Your task to perform on an android device: turn off javascript in the chrome app Image 0: 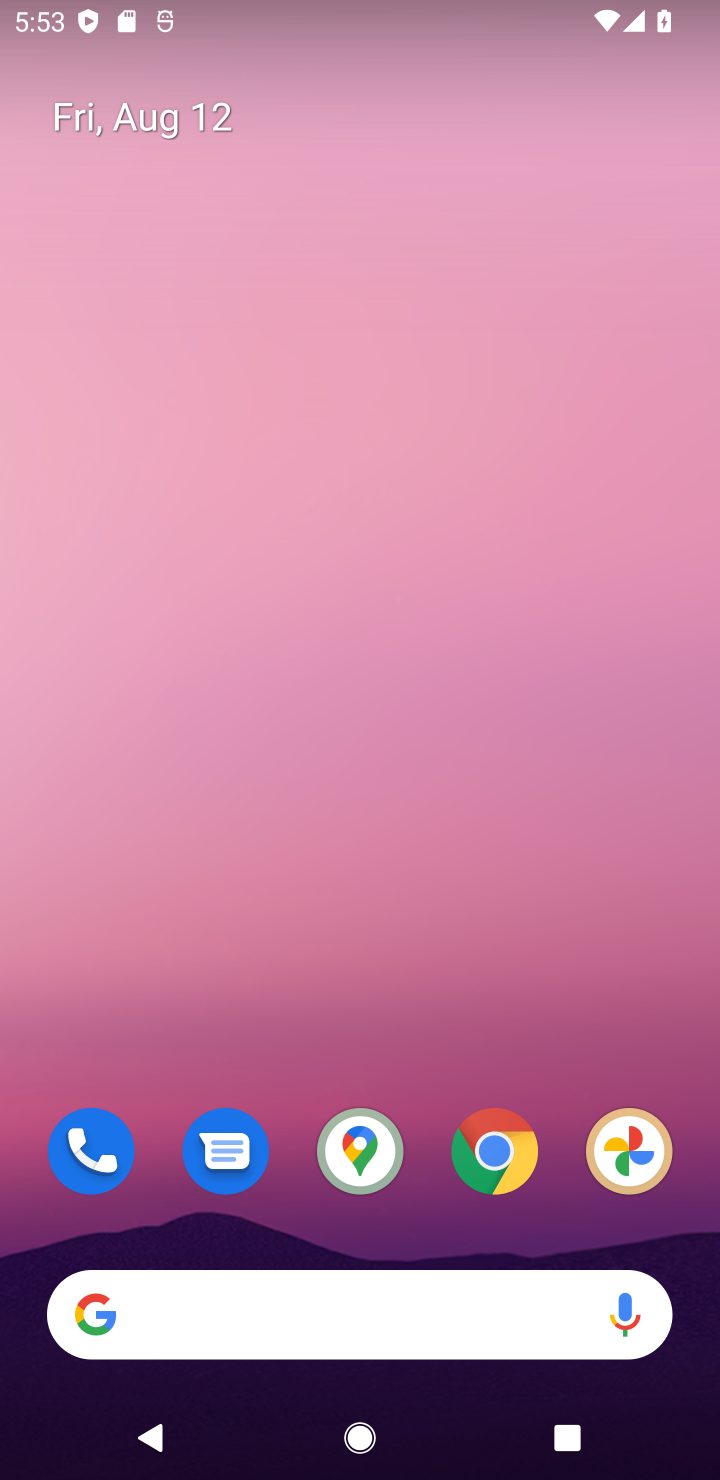
Step 0: drag from (341, 1240) to (237, 68)
Your task to perform on an android device: turn off javascript in the chrome app Image 1: 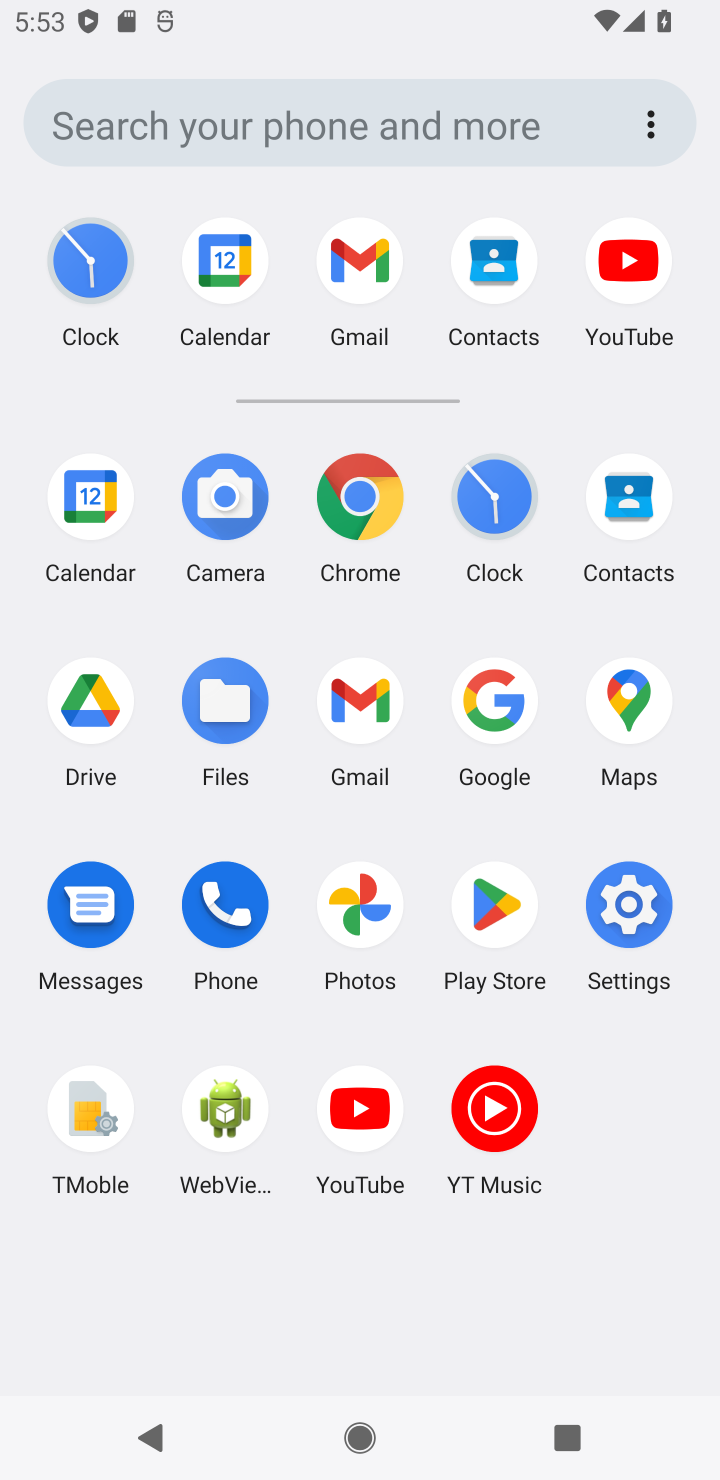
Step 1: click (376, 497)
Your task to perform on an android device: turn off javascript in the chrome app Image 2: 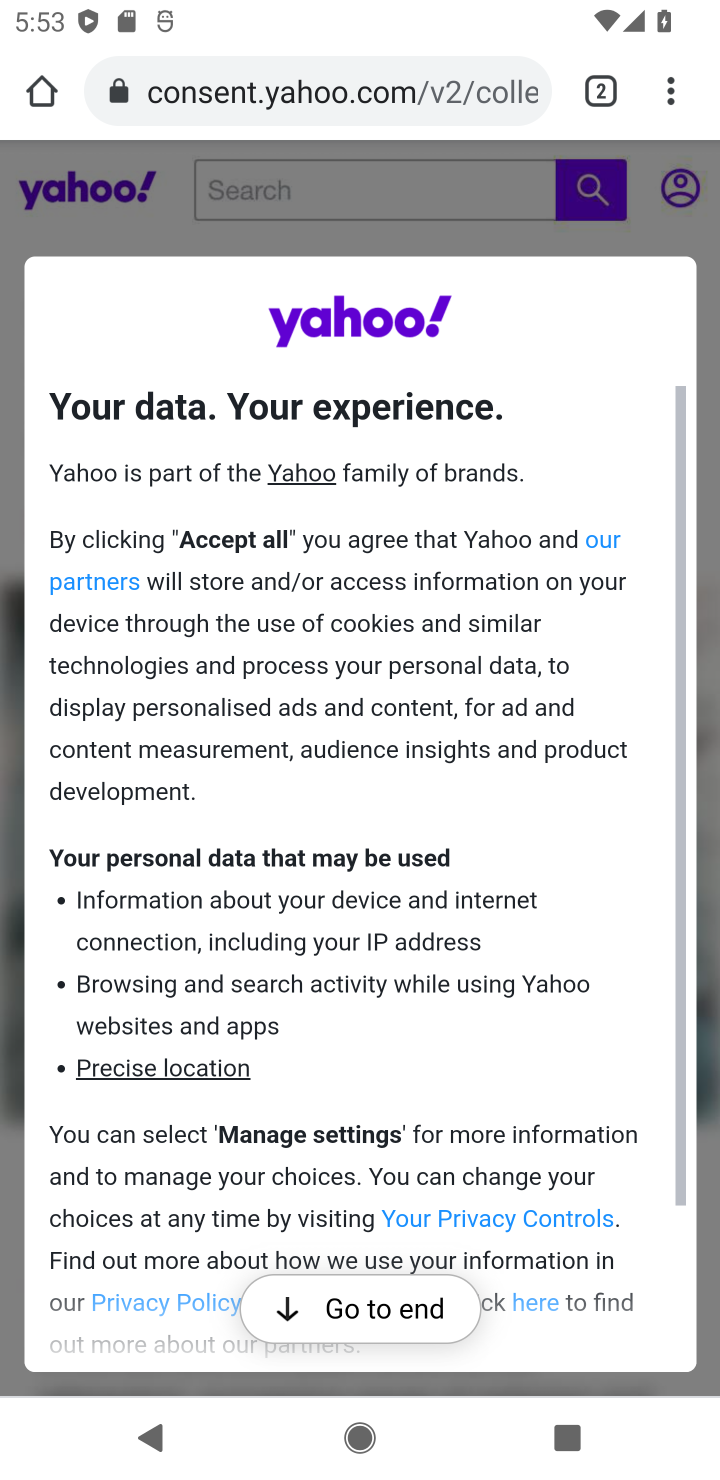
Step 2: drag from (675, 95) to (397, 1253)
Your task to perform on an android device: turn off javascript in the chrome app Image 3: 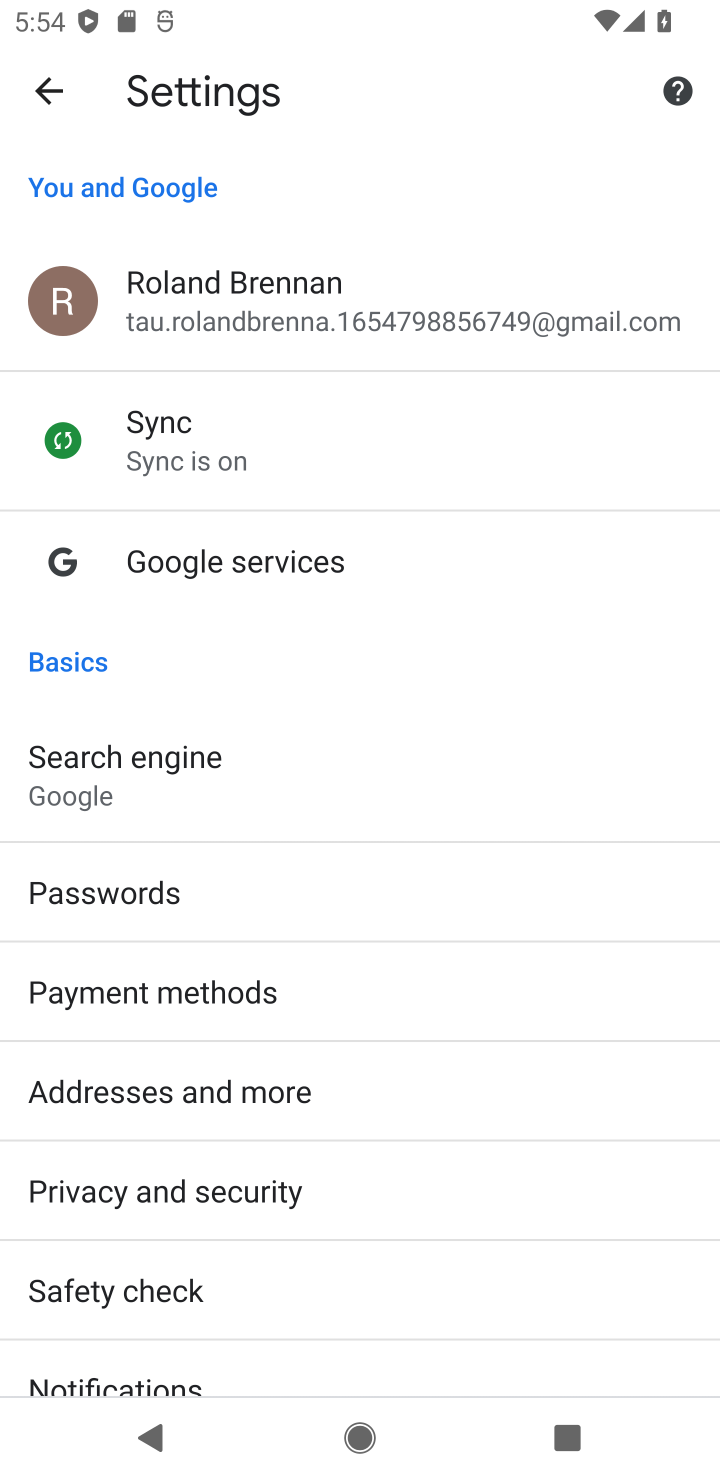
Step 3: drag from (411, 1257) to (129, 558)
Your task to perform on an android device: turn off javascript in the chrome app Image 4: 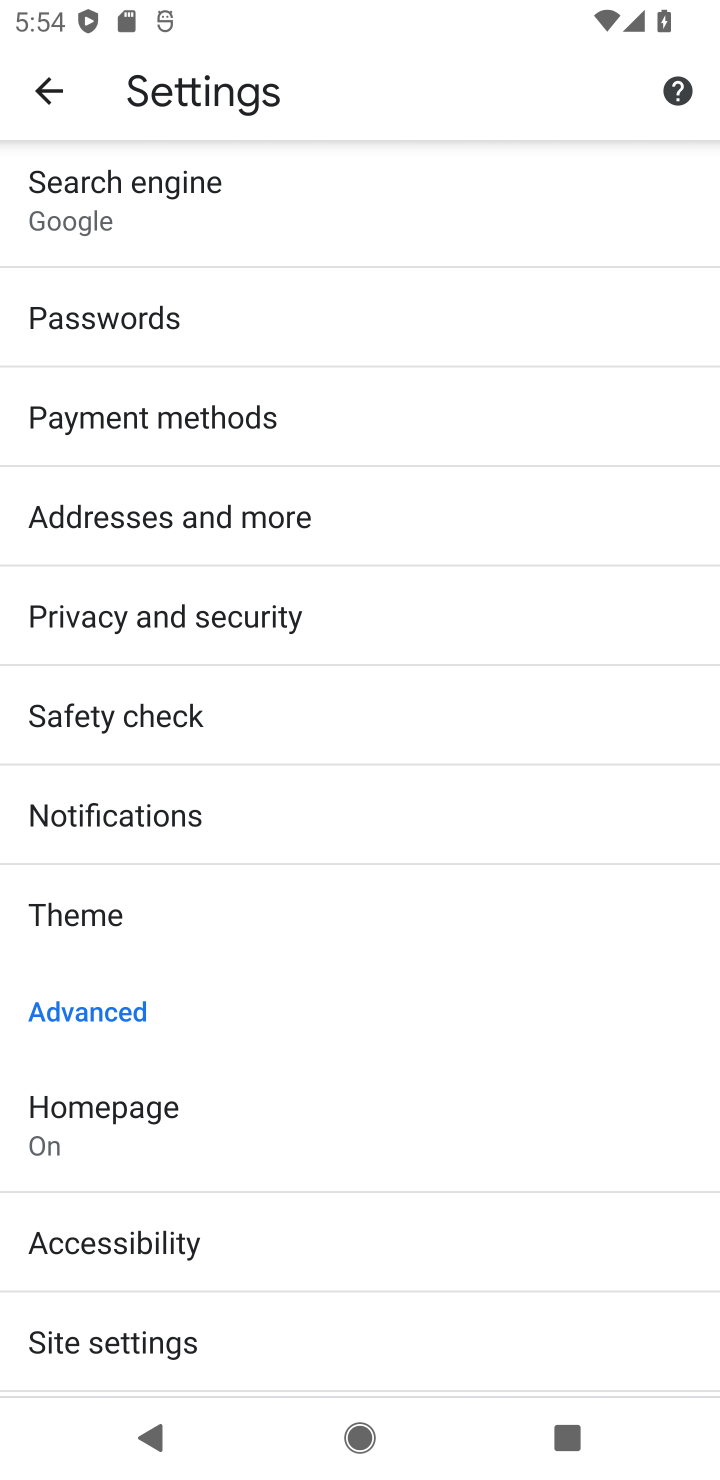
Step 4: click (194, 1319)
Your task to perform on an android device: turn off javascript in the chrome app Image 5: 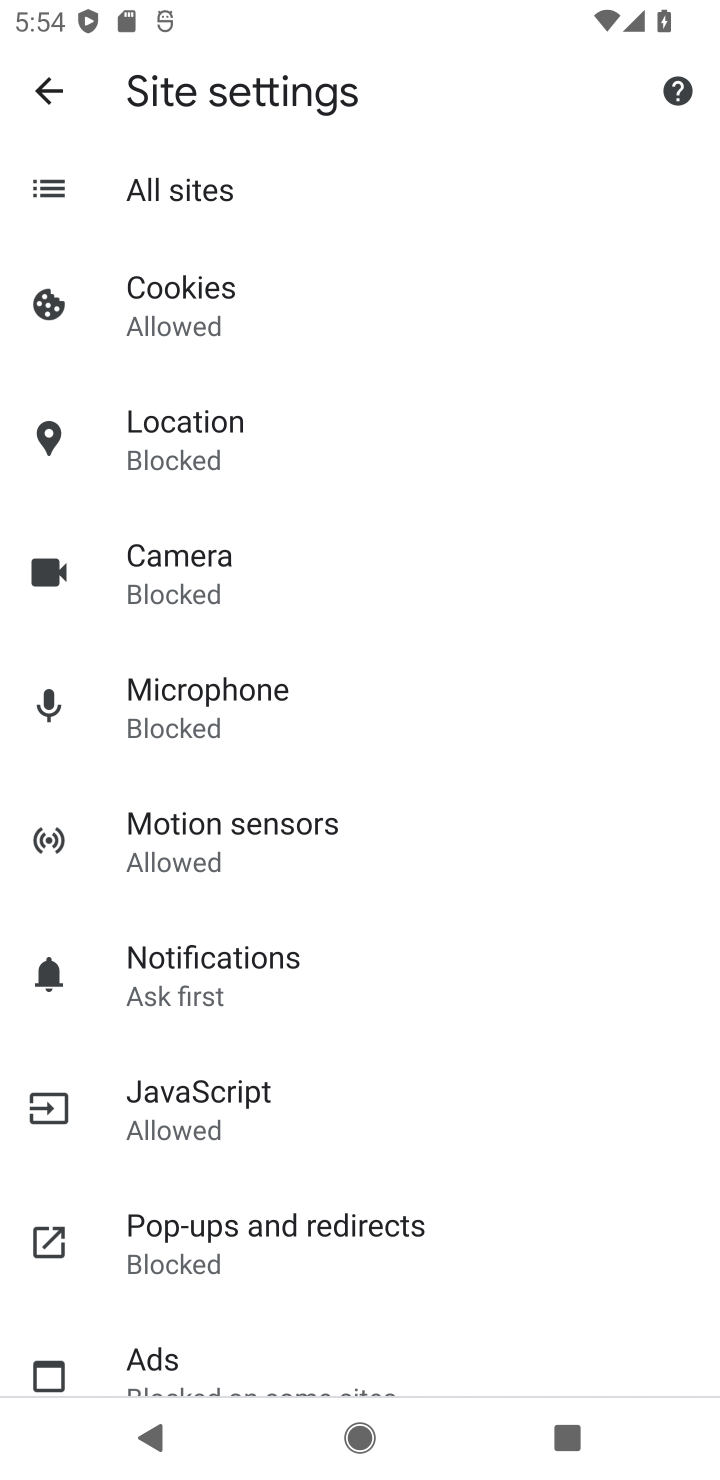
Step 5: click (254, 1120)
Your task to perform on an android device: turn off javascript in the chrome app Image 6: 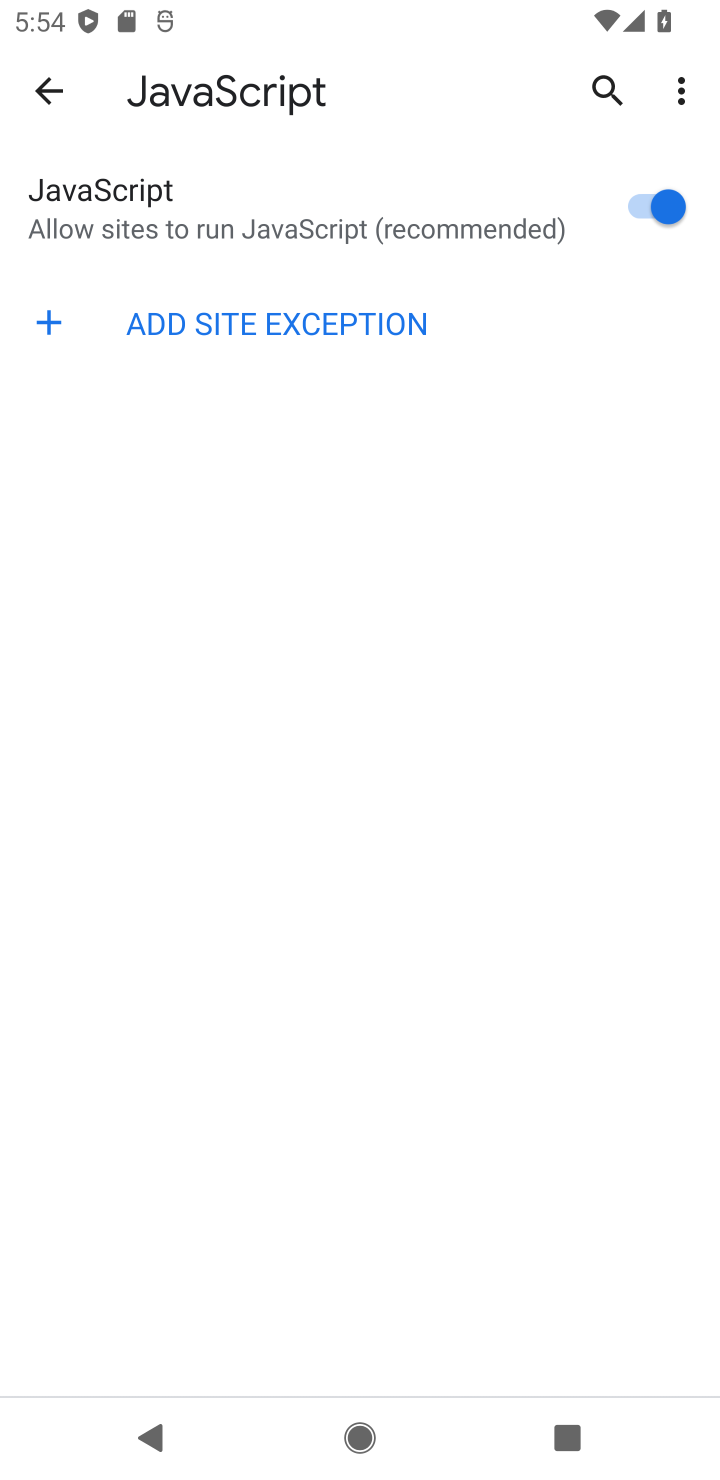
Step 6: click (683, 217)
Your task to perform on an android device: turn off javascript in the chrome app Image 7: 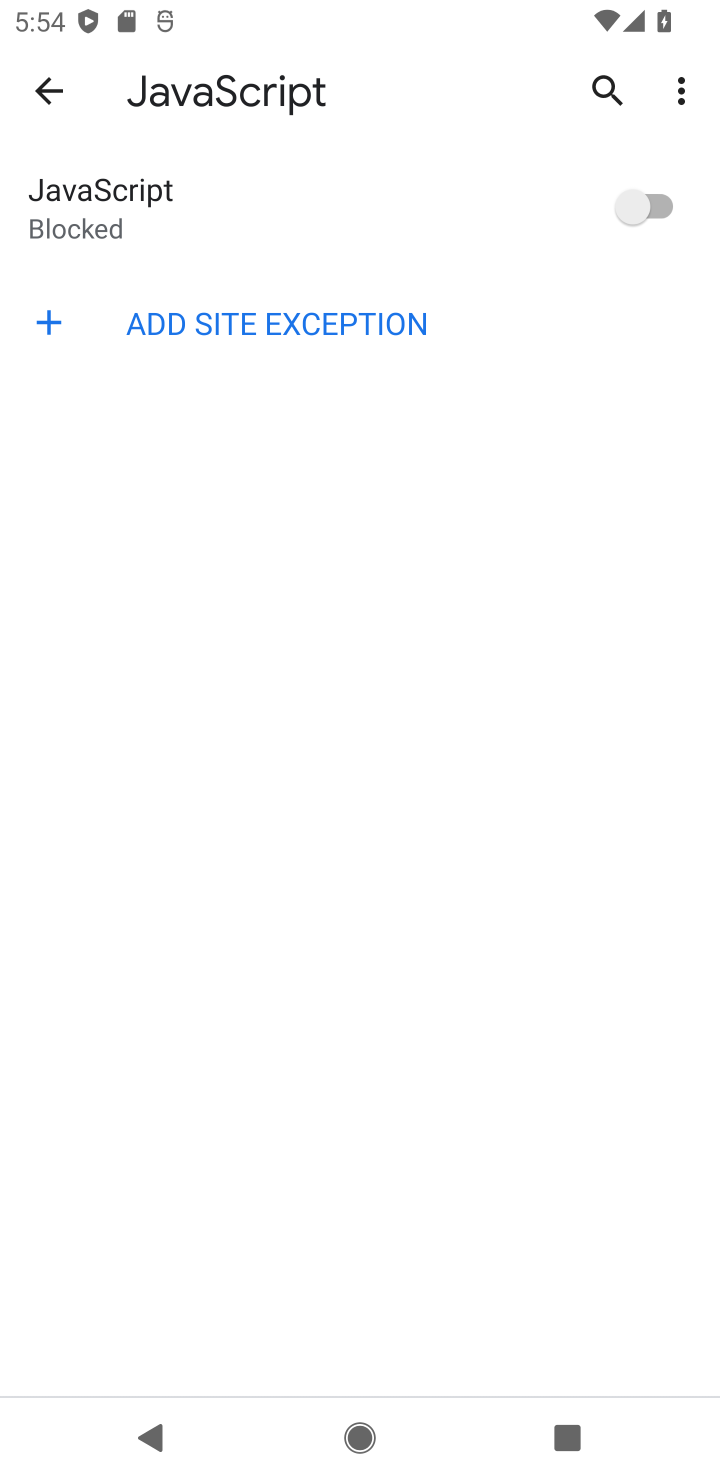
Step 7: task complete